Your task to perform on an android device: change alarm snooze length Image 0: 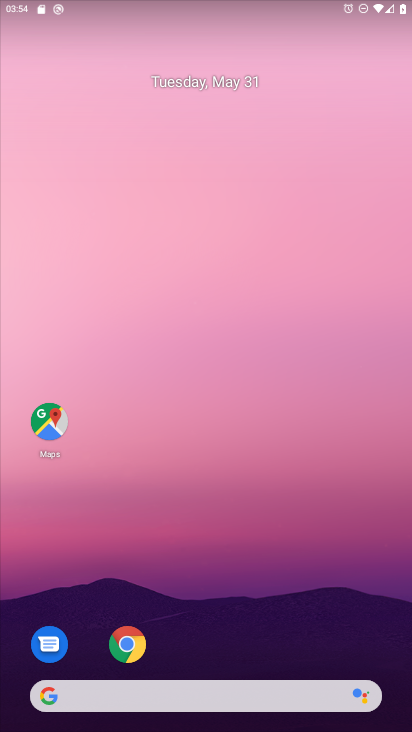
Step 0: drag from (319, 621) to (314, 91)
Your task to perform on an android device: change alarm snooze length Image 1: 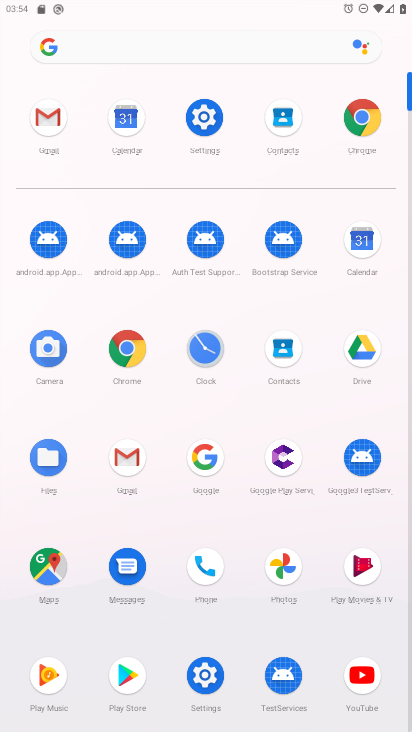
Step 1: click (210, 353)
Your task to perform on an android device: change alarm snooze length Image 2: 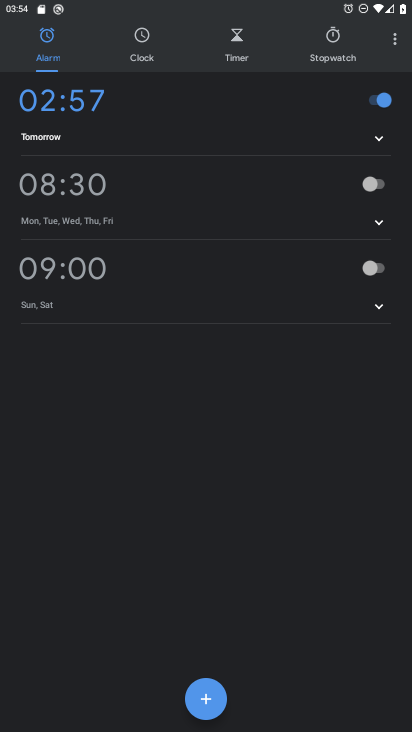
Step 2: click (390, 32)
Your task to perform on an android device: change alarm snooze length Image 3: 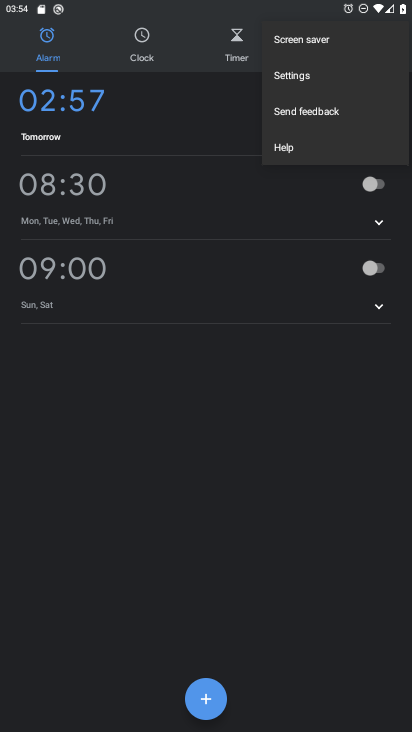
Step 3: click (315, 77)
Your task to perform on an android device: change alarm snooze length Image 4: 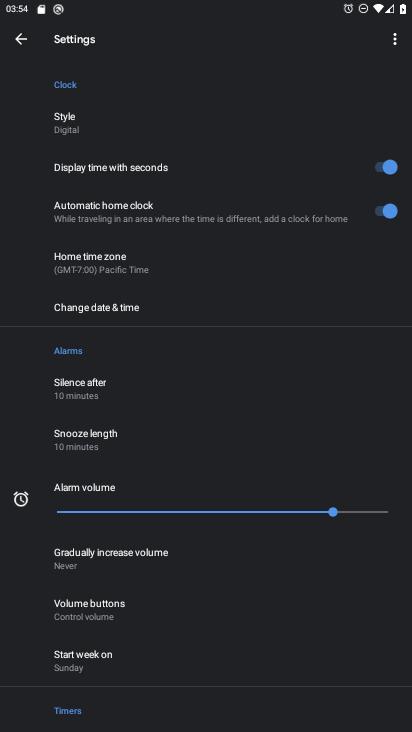
Step 4: click (100, 447)
Your task to perform on an android device: change alarm snooze length Image 5: 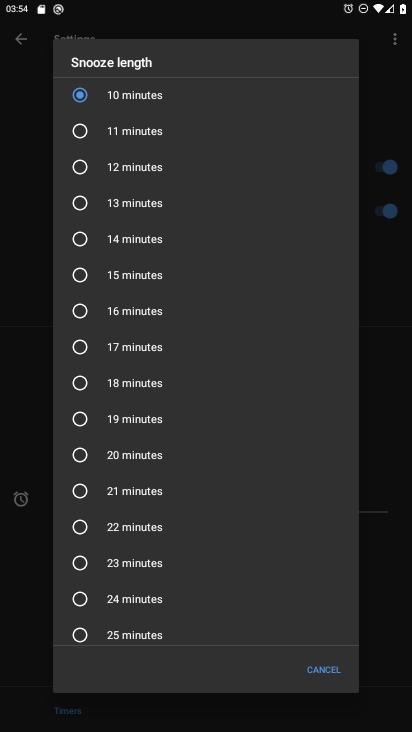
Step 5: click (128, 138)
Your task to perform on an android device: change alarm snooze length Image 6: 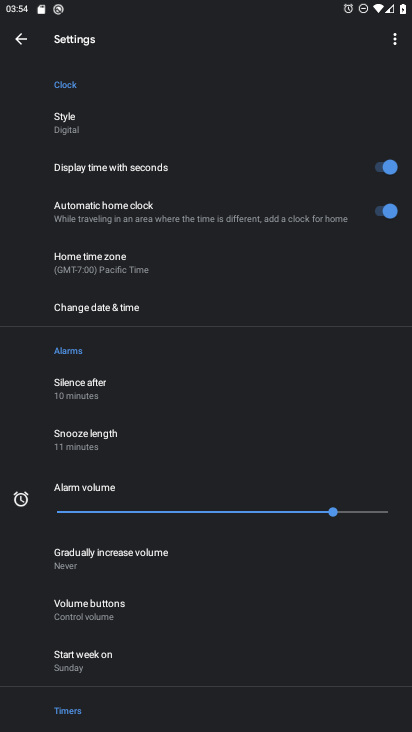
Step 6: task complete